Your task to perform on an android device: Open Maps and search for coffee Image 0: 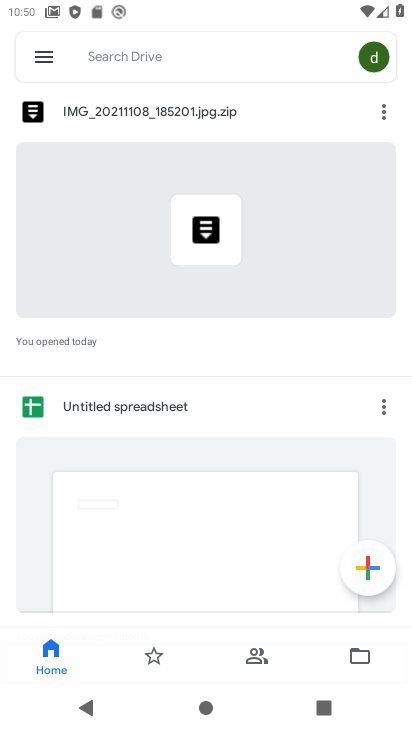
Step 0: press home button
Your task to perform on an android device: Open Maps and search for coffee Image 1: 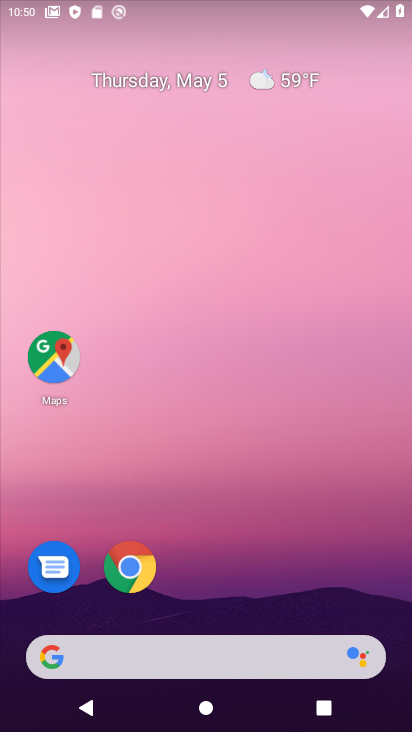
Step 1: click (54, 349)
Your task to perform on an android device: Open Maps and search for coffee Image 2: 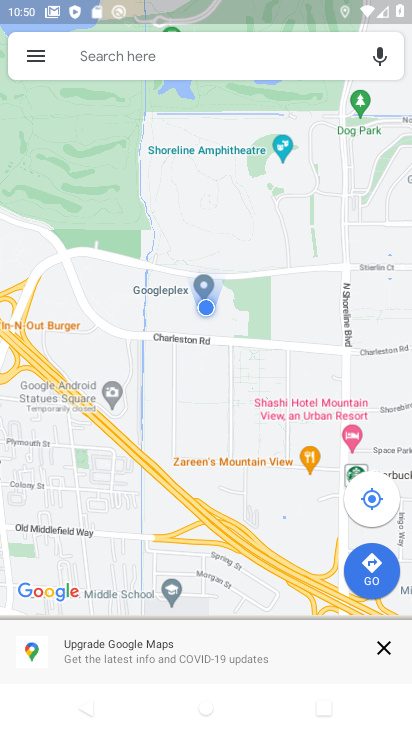
Step 2: click (144, 52)
Your task to perform on an android device: Open Maps and search for coffee Image 3: 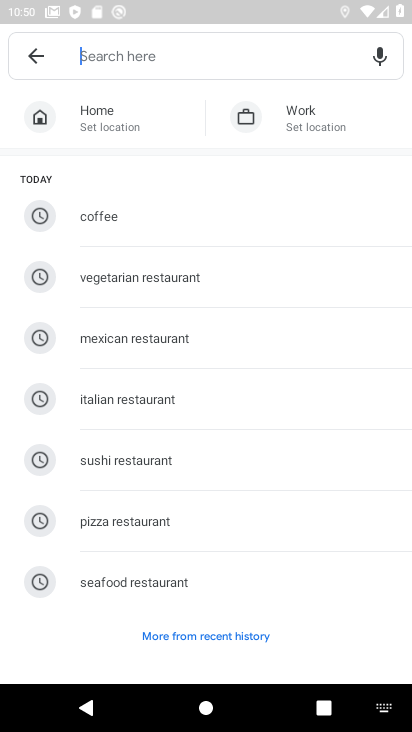
Step 3: click (94, 216)
Your task to perform on an android device: Open Maps and search for coffee Image 4: 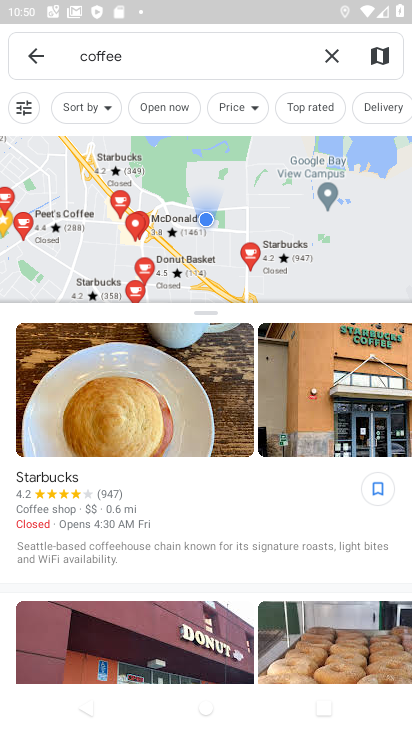
Step 4: task complete